Your task to perform on an android device: What's the weather today? Image 0: 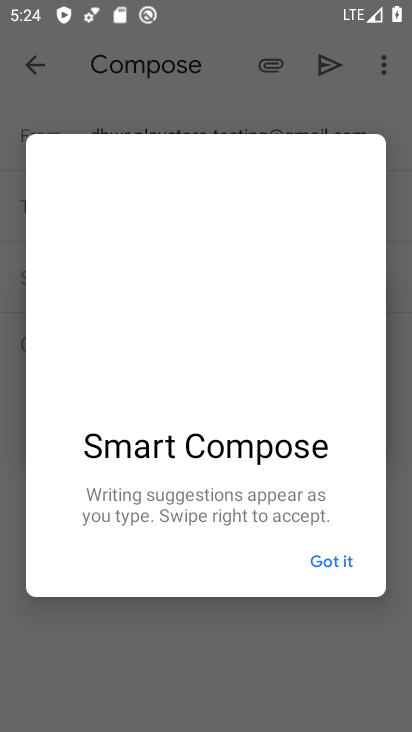
Step 0: press home button
Your task to perform on an android device: What's the weather today? Image 1: 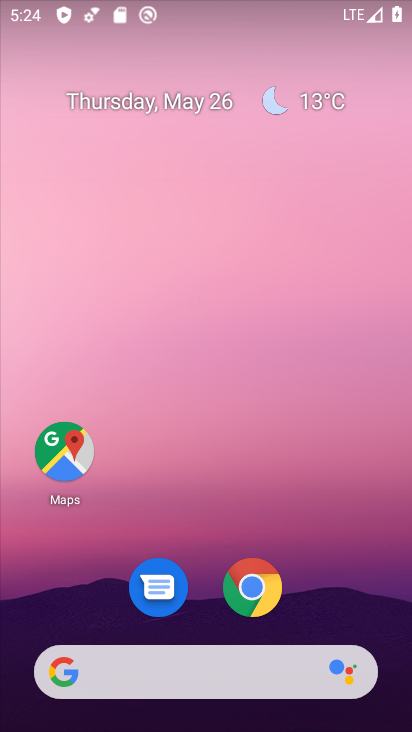
Step 1: drag from (208, 724) to (226, 203)
Your task to perform on an android device: What's the weather today? Image 2: 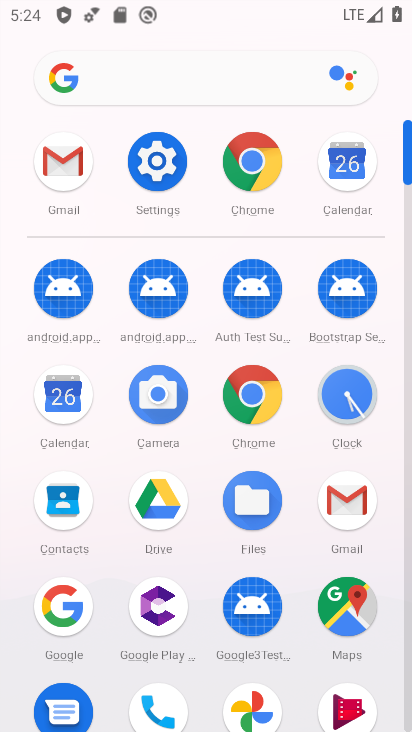
Step 2: click (69, 612)
Your task to perform on an android device: What's the weather today? Image 3: 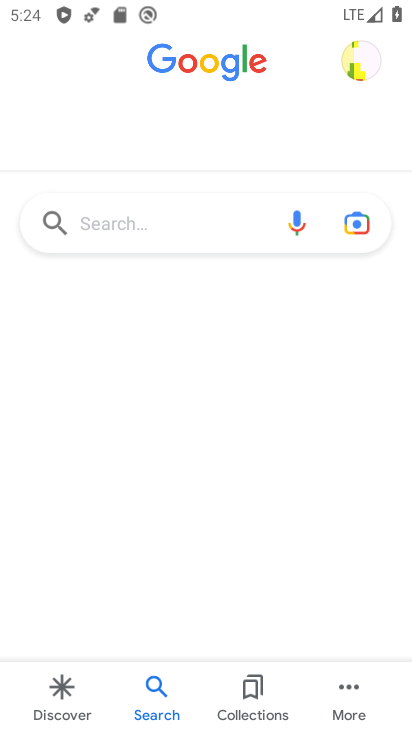
Step 3: click (208, 234)
Your task to perform on an android device: What's the weather today? Image 4: 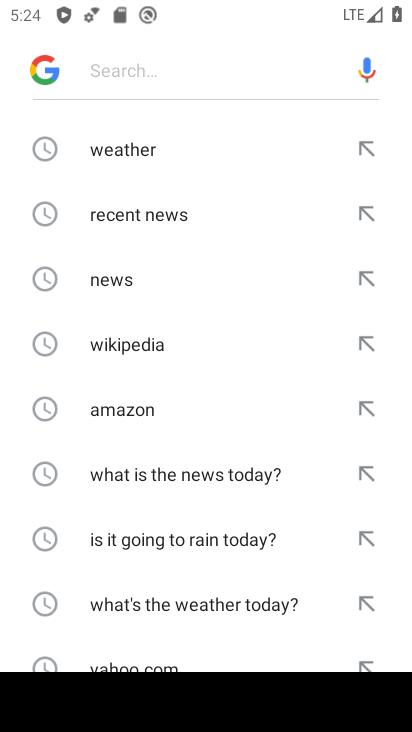
Step 4: click (126, 152)
Your task to perform on an android device: What's the weather today? Image 5: 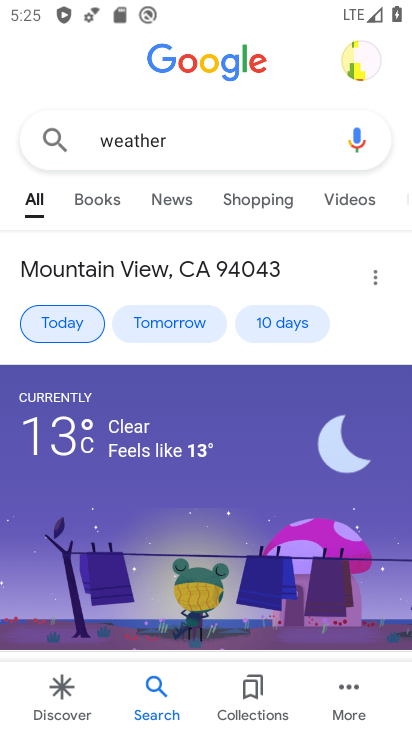
Step 5: click (76, 325)
Your task to perform on an android device: What's the weather today? Image 6: 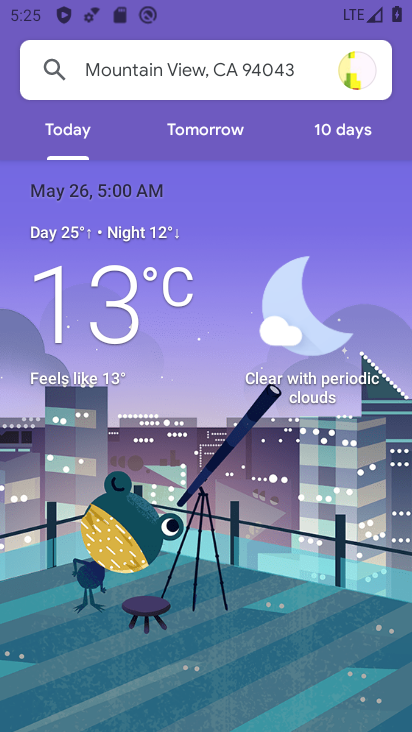
Step 6: task complete